Your task to perform on an android device: Open internet settings Image 0: 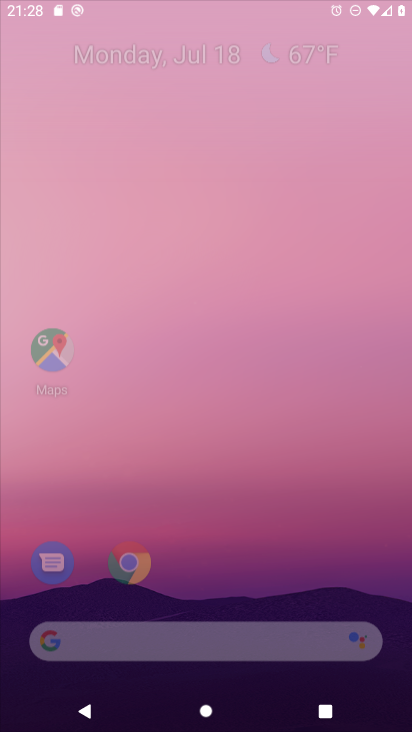
Step 0: drag from (355, 186) to (354, 123)
Your task to perform on an android device: Open internet settings Image 1: 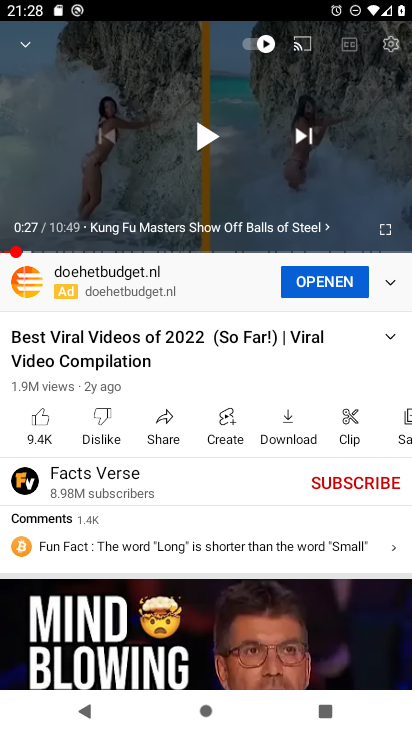
Step 1: press home button
Your task to perform on an android device: Open internet settings Image 2: 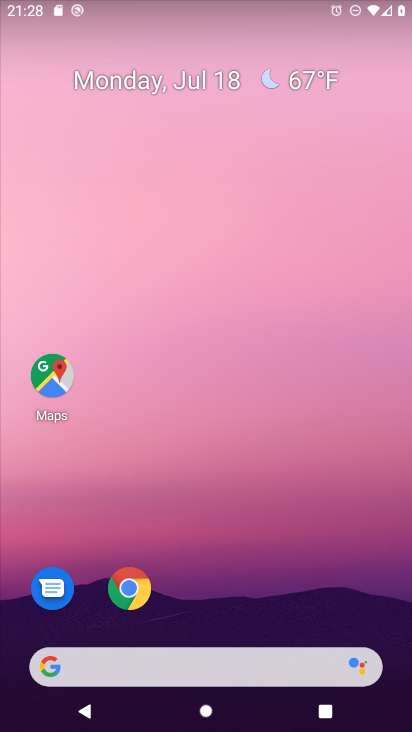
Step 2: drag from (342, 604) to (325, 189)
Your task to perform on an android device: Open internet settings Image 3: 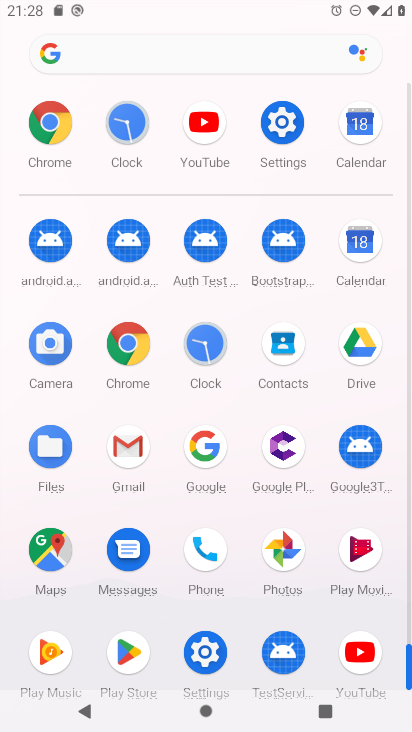
Step 3: click (205, 651)
Your task to perform on an android device: Open internet settings Image 4: 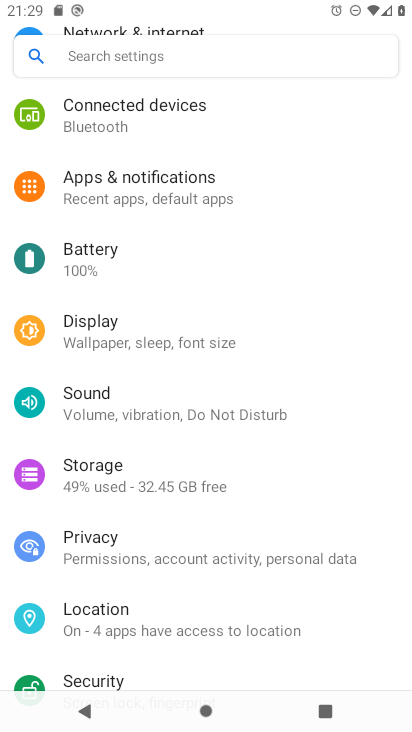
Step 4: drag from (305, 162) to (287, 539)
Your task to perform on an android device: Open internet settings Image 5: 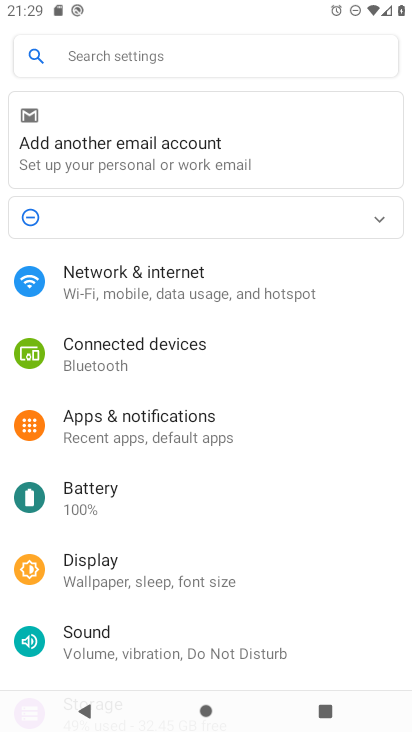
Step 5: click (116, 278)
Your task to perform on an android device: Open internet settings Image 6: 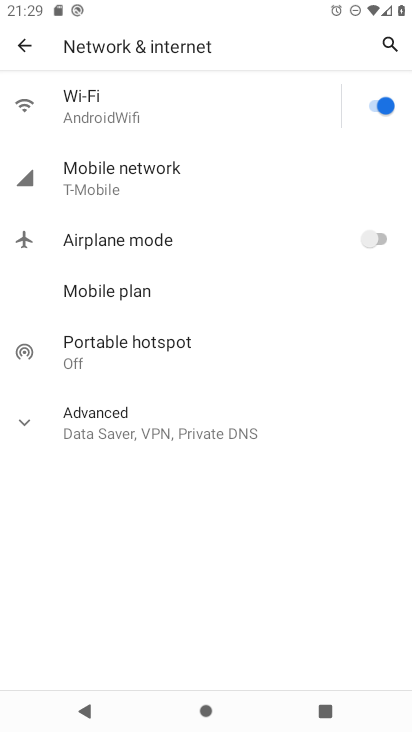
Step 6: click (85, 110)
Your task to perform on an android device: Open internet settings Image 7: 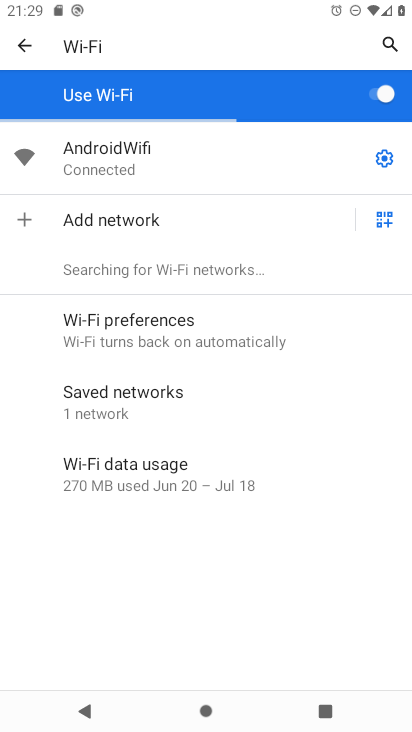
Step 7: click (384, 157)
Your task to perform on an android device: Open internet settings Image 8: 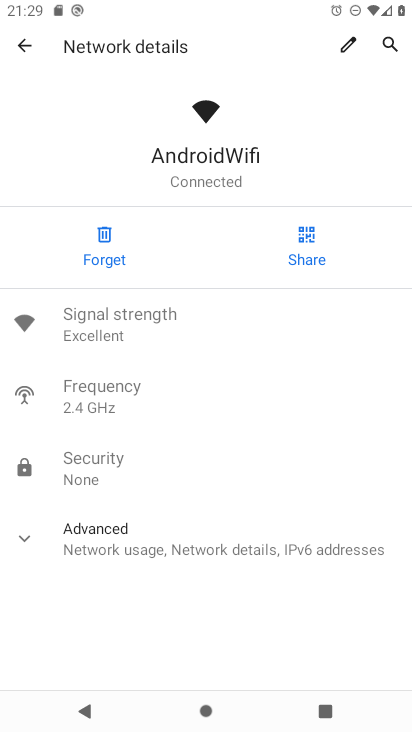
Step 8: task complete